Your task to perform on an android device: create a new album in the google photos Image 0: 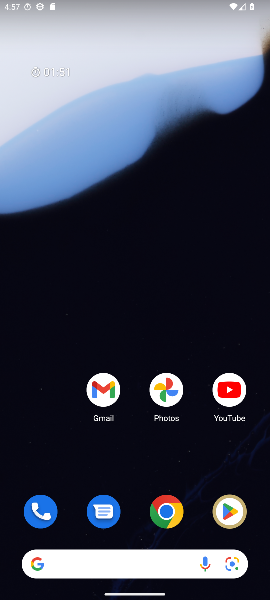
Step 0: click (171, 402)
Your task to perform on an android device: create a new album in the google photos Image 1: 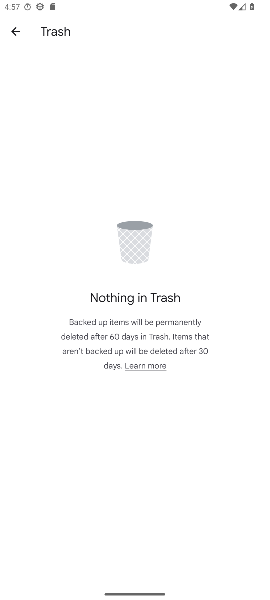
Step 1: click (14, 26)
Your task to perform on an android device: create a new album in the google photos Image 2: 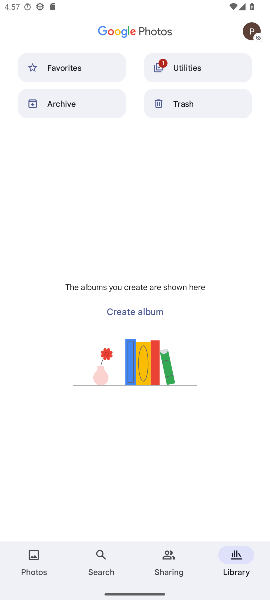
Step 2: click (133, 308)
Your task to perform on an android device: create a new album in the google photos Image 3: 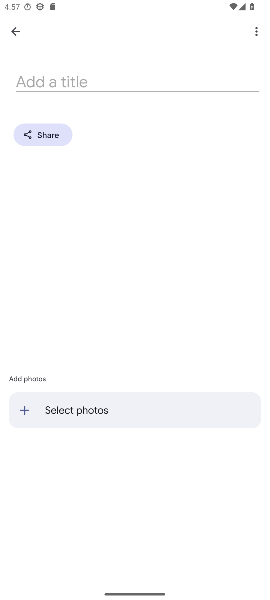
Step 3: click (24, 407)
Your task to perform on an android device: create a new album in the google photos Image 4: 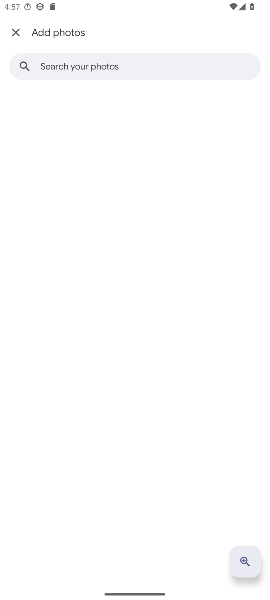
Step 4: task complete